Your task to perform on an android device: When is my next appointment? Image 0: 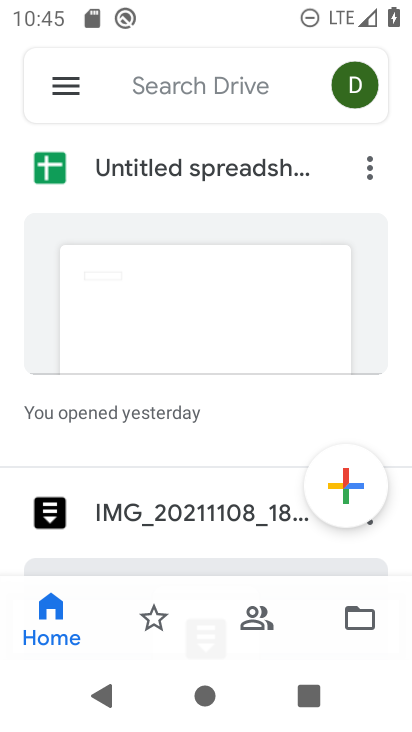
Step 0: press home button
Your task to perform on an android device: When is my next appointment? Image 1: 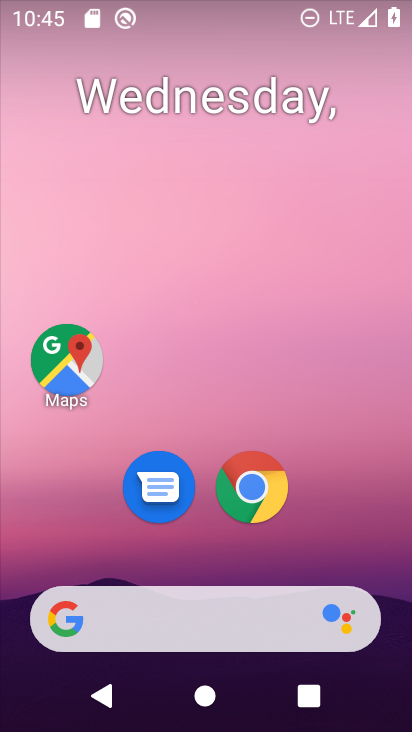
Step 1: drag from (367, 500) to (268, 10)
Your task to perform on an android device: When is my next appointment? Image 2: 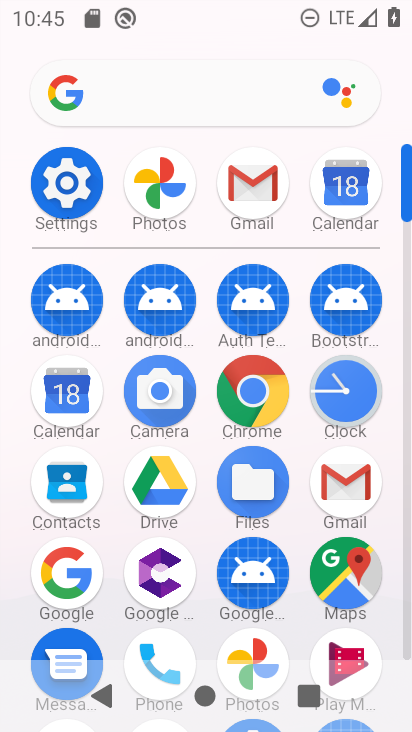
Step 2: click (77, 391)
Your task to perform on an android device: When is my next appointment? Image 3: 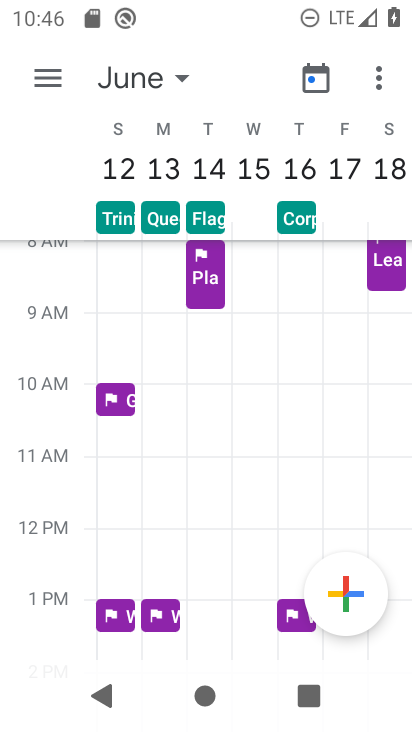
Step 3: click (167, 72)
Your task to perform on an android device: When is my next appointment? Image 4: 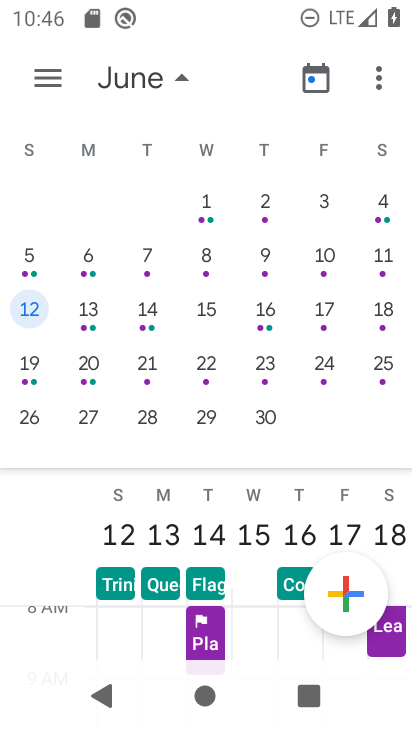
Step 4: drag from (58, 260) to (337, 295)
Your task to perform on an android device: When is my next appointment? Image 5: 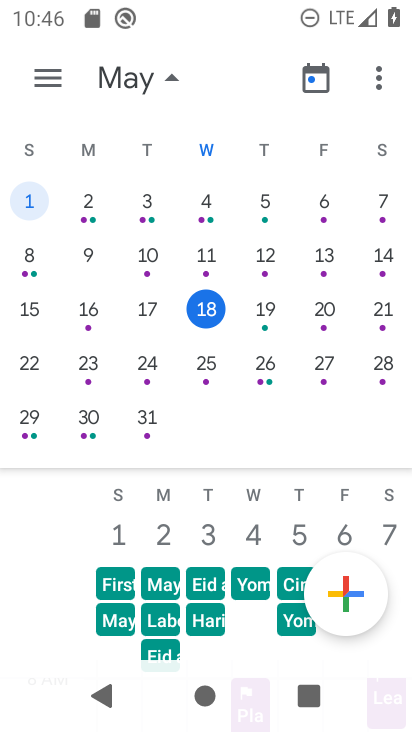
Step 5: click (213, 313)
Your task to perform on an android device: When is my next appointment? Image 6: 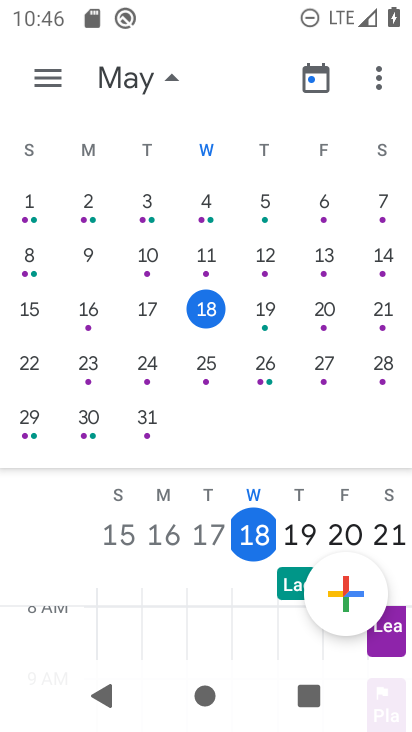
Step 6: task complete